Your task to perform on an android device: Is it going to rain this weekend? Image 0: 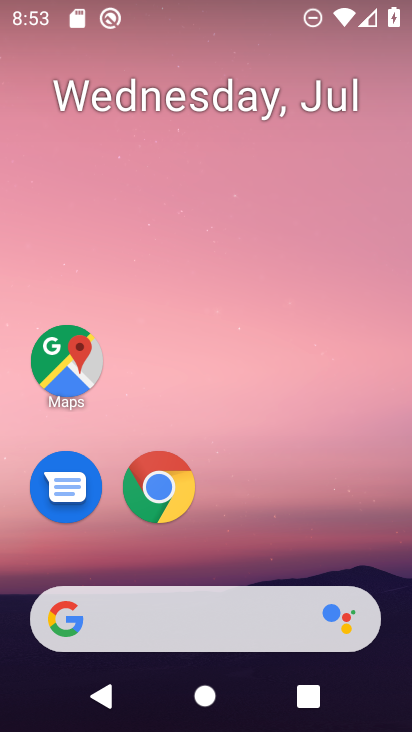
Step 0: click (209, 612)
Your task to perform on an android device: Is it going to rain this weekend? Image 1: 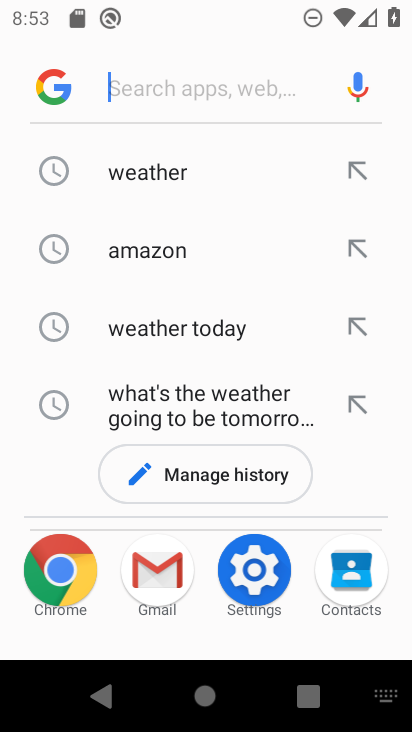
Step 1: click (194, 176)
Your task to perform on an android device: Is it going to rain this weekend? Image 2: 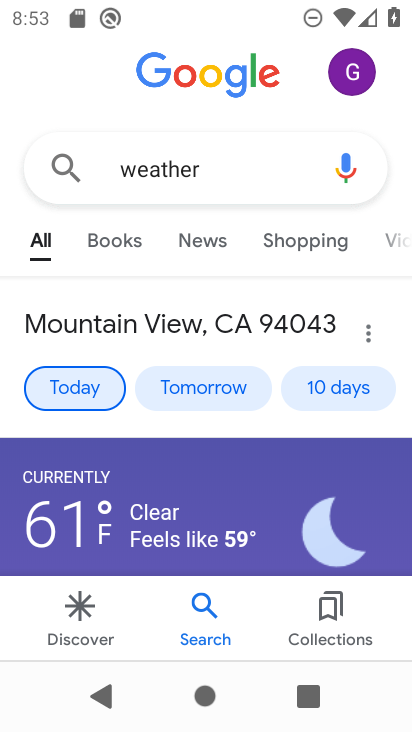
Step 2: click (329, 393)
Your task to perform on an android device: Is it going to rain this weekend? Image 3: 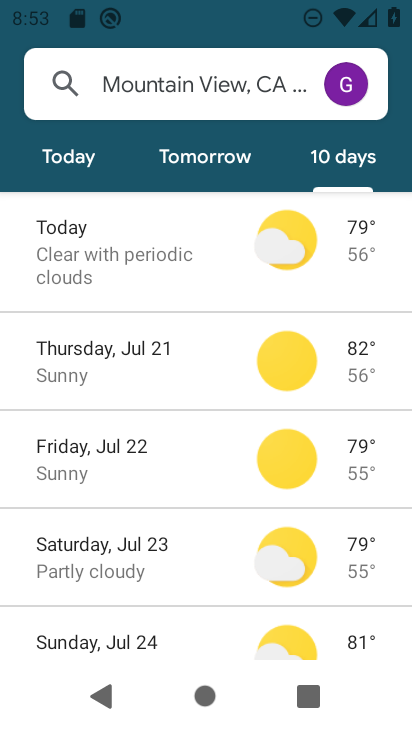
Step 3: click (207, 559)
Your task to perform on an android device: Is it going to rain this weekend? Image 4: 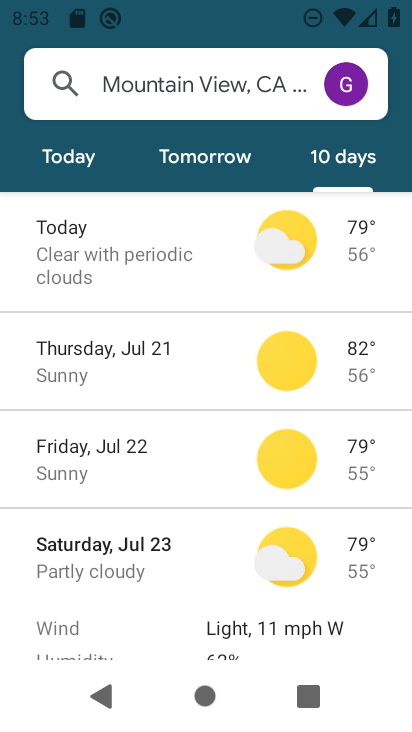
Step 4: task complete